Your task to perform on an android device: Open Youtube and go to "Your channel" Image 0: 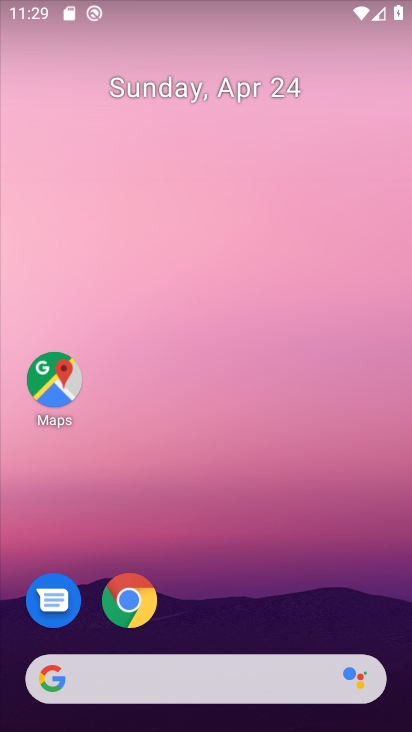
Step 0: drag from (197, 707) to (175, 2)
Your task to perform on an android device: Open Youtube and go to "Your channel" Image 1: 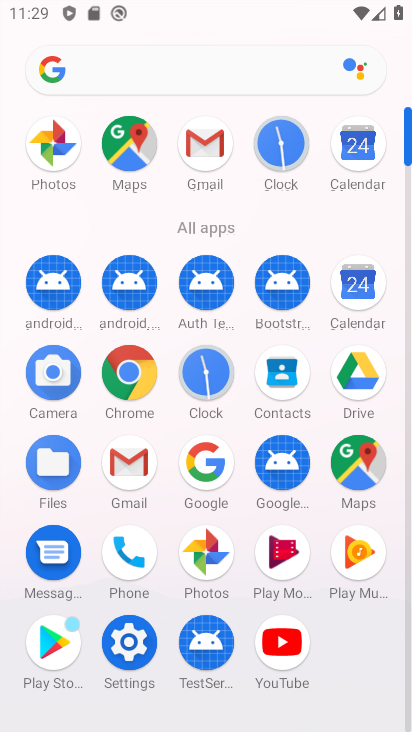
Step 1: click (292, 644)
Your task to perform on an android device: Open Youtube and go to "Your channel" Image 2: 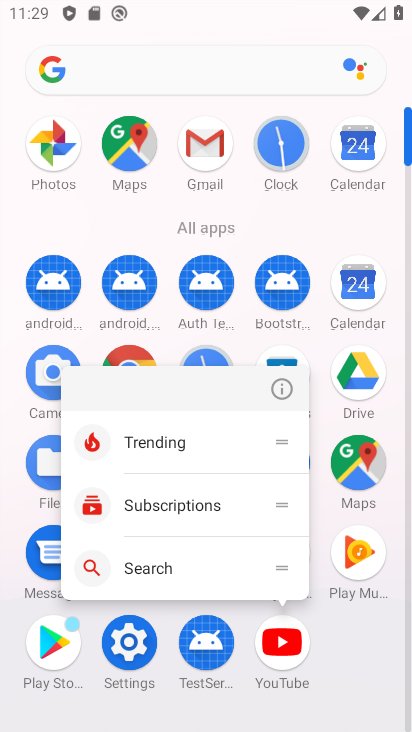
Step 2: click (276, 646)
Your task to perform on an android device: Open Youtube and go to "Your channel" Image 3: 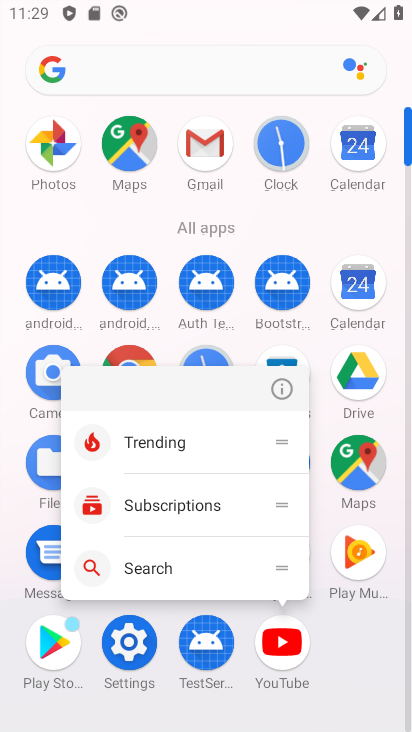
Step 3: click (276, 643)
Your task to perform on an android device: Open Youtube and go to "Your channel" Image 4: 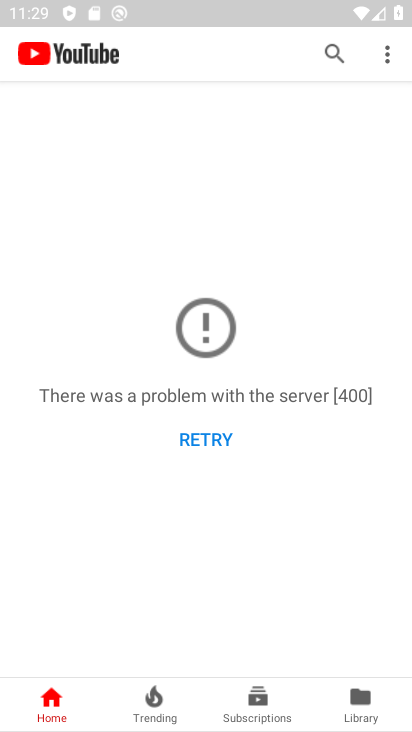
Step 4: task complete